Your task to perform on an android device: Search for "razer blade" on newegg.com, select the first entry, add it to the cart, then select checkout. Image 0: 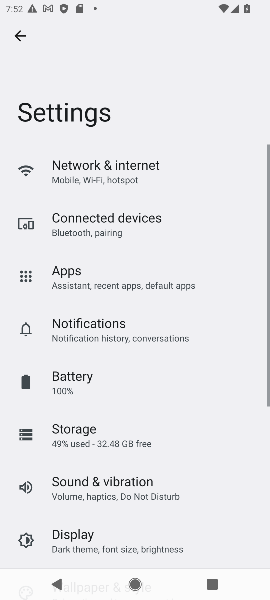
Step 0: press home button
Your task to perform on an android device: Search for "razer blade" on newegg.com, select the first entry, add it to the cart, then select checkout. Image 1: 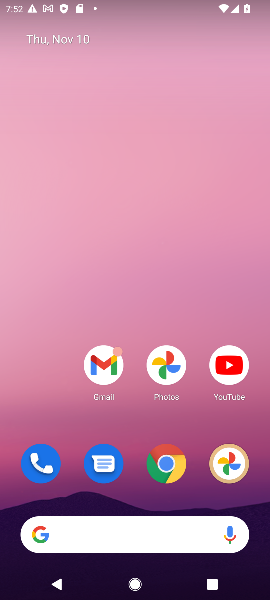
Step 1: click (175, 465)
Your task to perform on an android device: Search for "razer blade" on newegg.com, select the first entry, add it to the cart, then select checkout. Image 2: 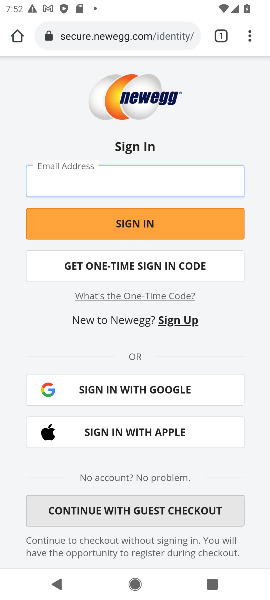
Step 2: press back button
Your task to perform on an android device: Search for "razer blade" on newegg.com, select the first entry, add it to the cart, then select checkout. Image 3: 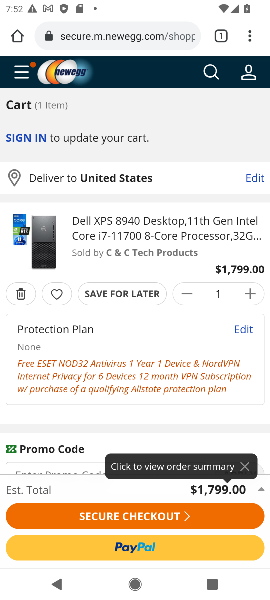
Step 3: click (209, 71)
Your task to perform on an android device: Search for "razer blade" on newegg.com, select the first entry, add it to the cart, then select checkout. Image 4: 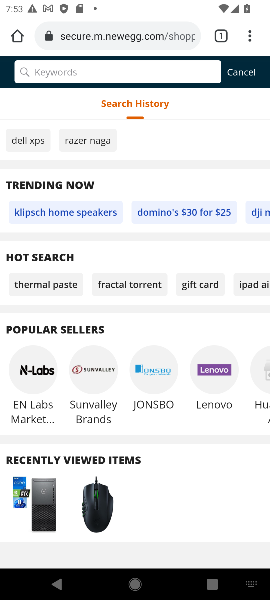
Step 4: type "razer blade"
Your task to perform on an android device: Search for "razer blade" on newegg.com, select the first entry, add it to the cart, then select checkout. Image 5: 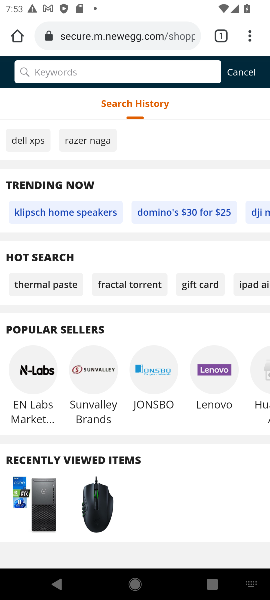
Step 5: press enter
Your task to perform on an android device: Search for "razer blade" on newegg.com, select the first entry, add it to the cart, then select checkout. Image 6: 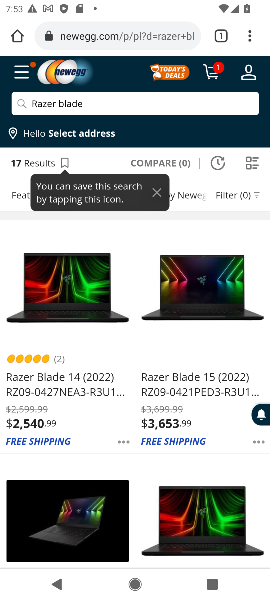
Step 6: click (62, 390)
Your task to perform on an android device: Search for "razer blade" on newegg.com, select the first entry, add it to the cart, then select checkout. Image 7: 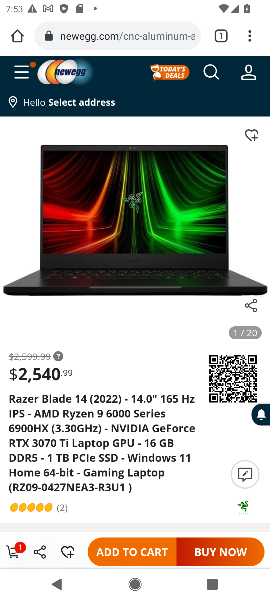
Step 7: click (131, 554)
Your task to perform on an android device: Search for "razer blade" on newegg.com, select the first entry, add it to the cart, then select checkout. Image 8: 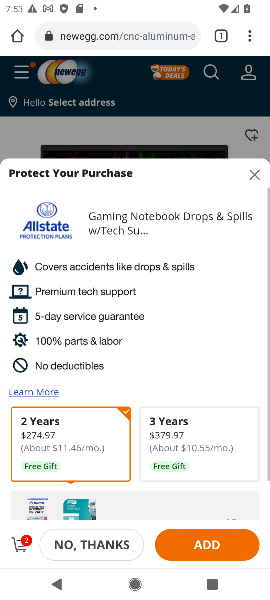
Step 8: click (22, 546)
Your task to perform on an android device: Search for "razer blade" on newegg.com, select the first entry, add it to the cart, then select checkout. Image 9: 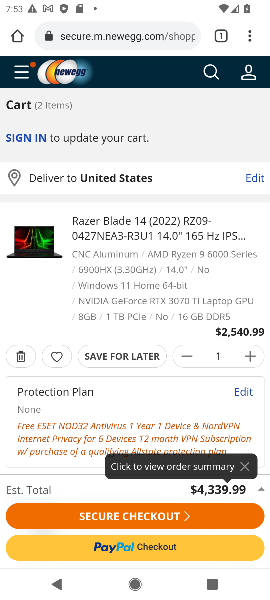
Step 9: drag from (78, 451) to (174, 154)
Your task to perform on an android device: Search for "razer blade" on newegg.com, select the first entry, add it to the cart, then select checkout. Image 10: 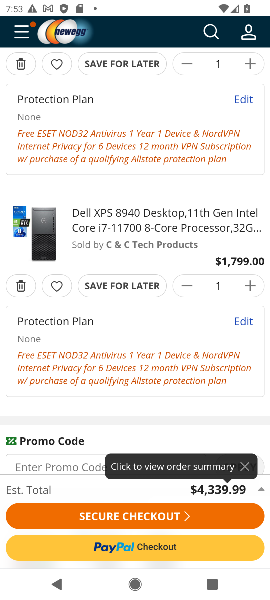
Step 10: click (21, 288)
Your task to perform on an android device: Search for "razer blade" on newegg.com, select the first entry, add it to the cart, then select checkout. Image 11: 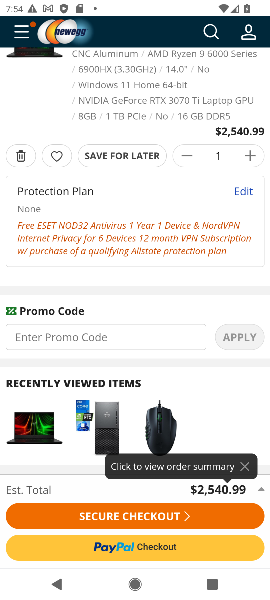
Step 11: drag from (48, 97) to (95, 341)
Your task to perform on an android device: Search for "razer blade" on newegg.com, select the first entry, add it to the cart, then select checkout. Image 12: 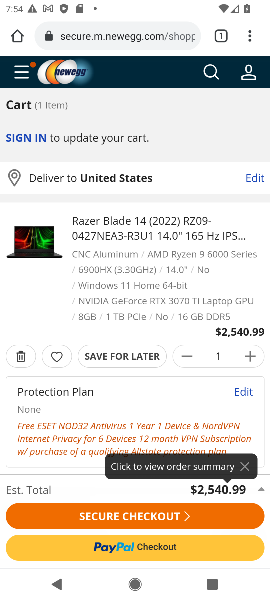
Step 12: click (159, 518)
Your task to perform on an android device: Search for "razer blade" on newegg.com, select the first entry, add it to the cart, then select checkout. Image 13: 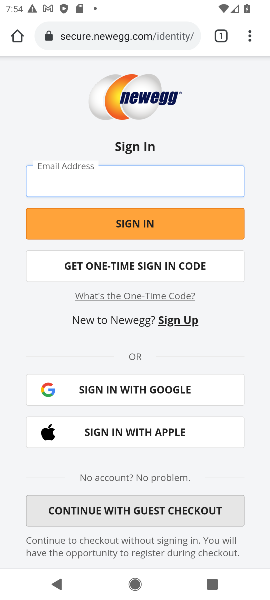
Step 13: task complete